Your task to perform on an android device: Open calendar and show me the first week of next month Image 0: 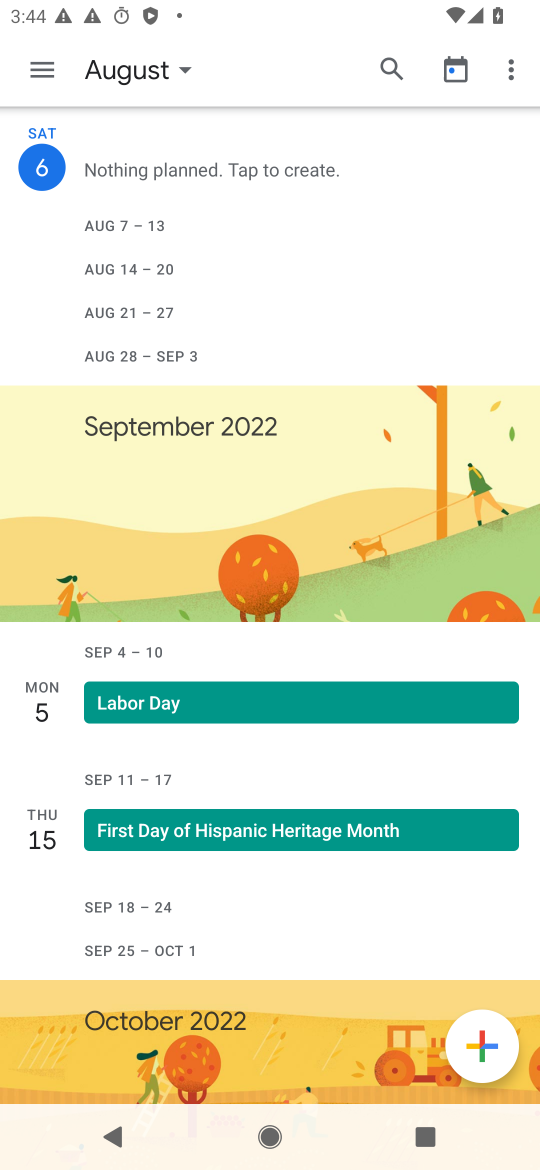
Step 0: press home button
Your task to perform on an android device: Open calendar and show me the first week of next month Image 1: 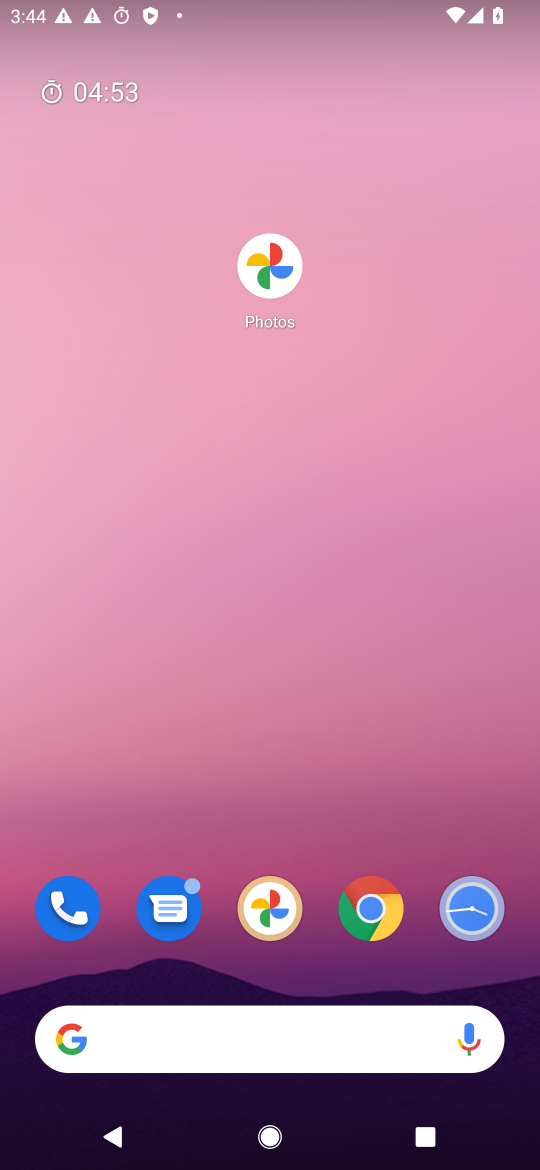
Step 1: drag from (323, 803) to (421, 28)
Your task to perform on an android device: Open calendar and show me the first week of next month Image 2: 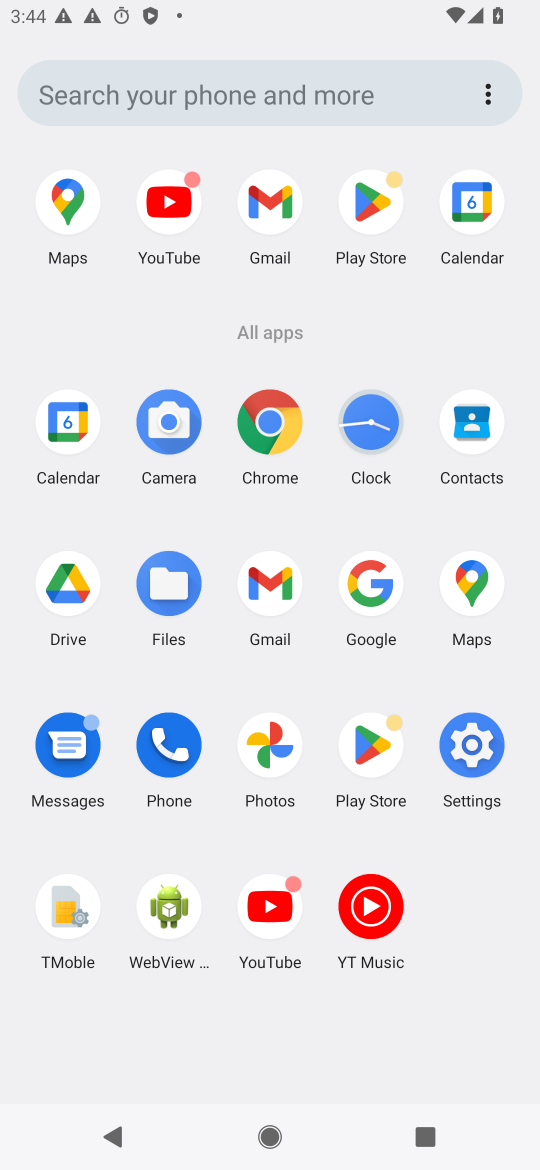
Step 2: click (83, 435)
Your task to perform on an android device: Open calendar and show me the first week of next month Image 3: 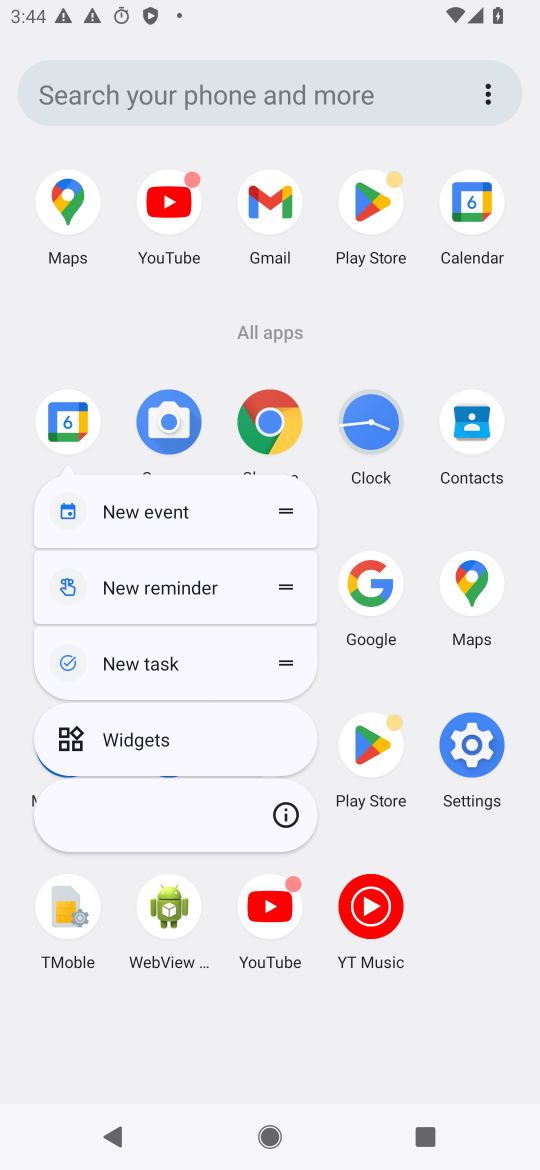
Step 3: click (78, 423)
Your task to perform on an android device: Open calendar and show me the first week of next month Image 4: 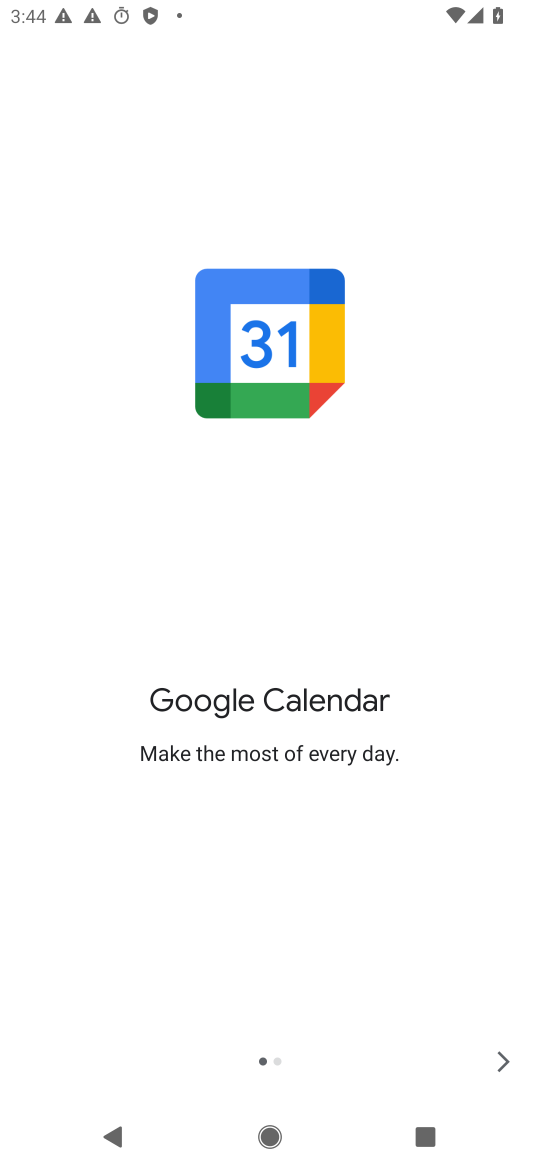
Step 4: click (504, 1059)
Your task to perform on an android device: Open calendar and show me the first week of next month Image 5: 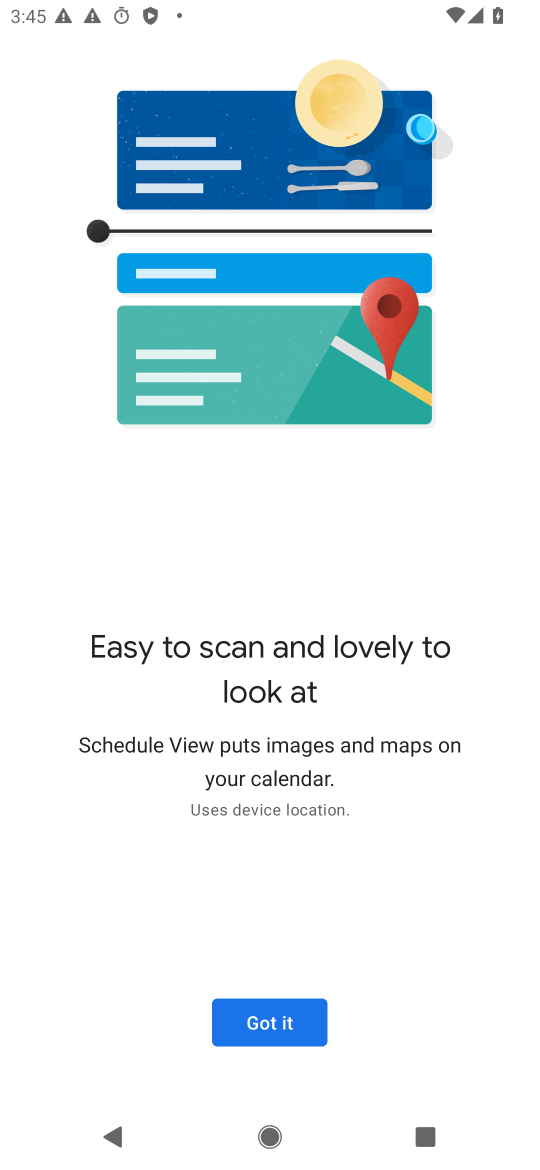
Step 5: click (275, 1010)
Your task to perform on an android device: Open calendar and show me the first week of next month Image 6: 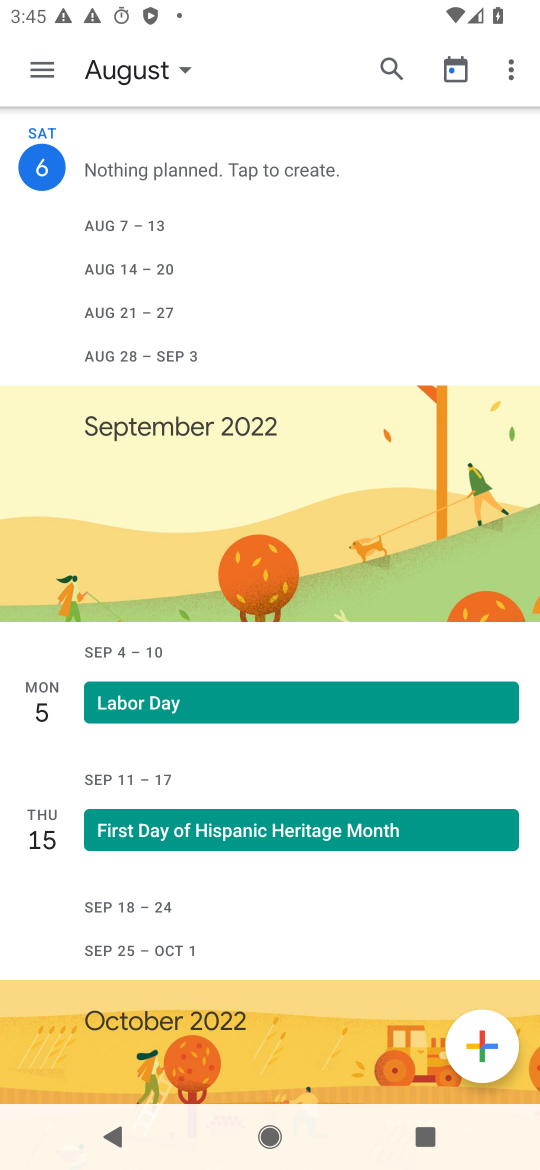
Step 6: click (38, 73)
Your task to perform on an android device: Open calendar and show me the first week of next month Image 7: 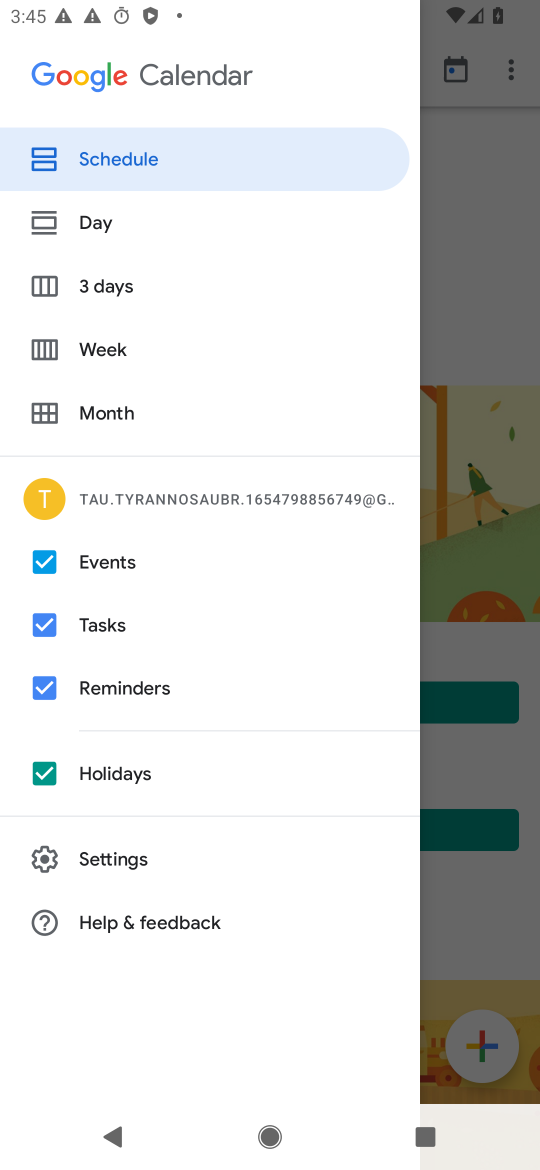
Step 7: click (145, 341)
Your task to perform on an android device: Open calendar and show me the first week of next month Image 8: 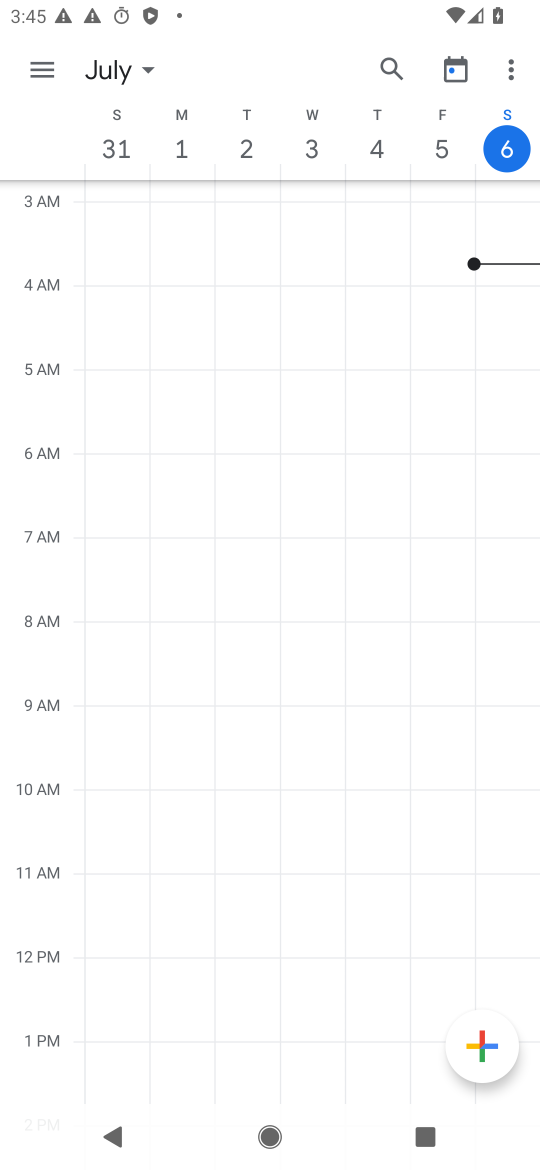
Step 8: task complete